Your task to perform on an android device: set the stopwatch Image 0: 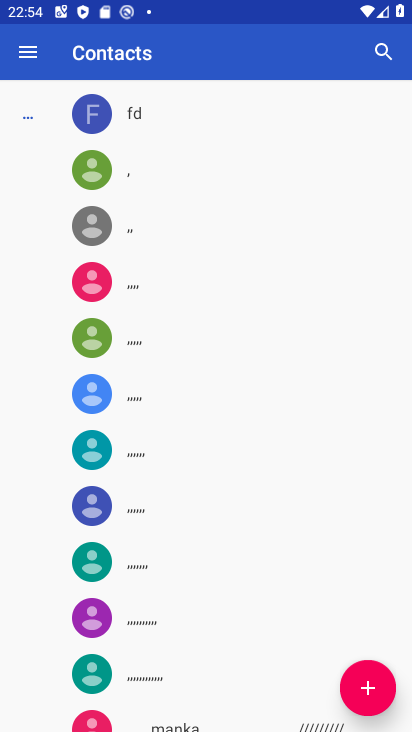
Step 0: press home button
Your task to perform on an android device: set the stopwatch Image 1: 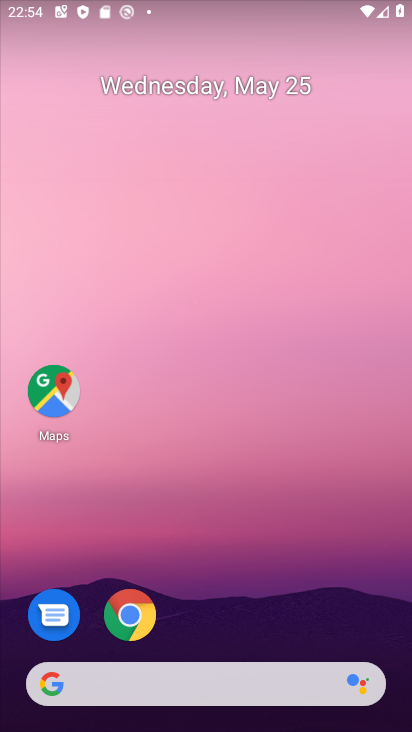
Step 1: drag from (313, 624) to (298, 264)
Your task to perform on an android device: set the stopwatch Image 2: 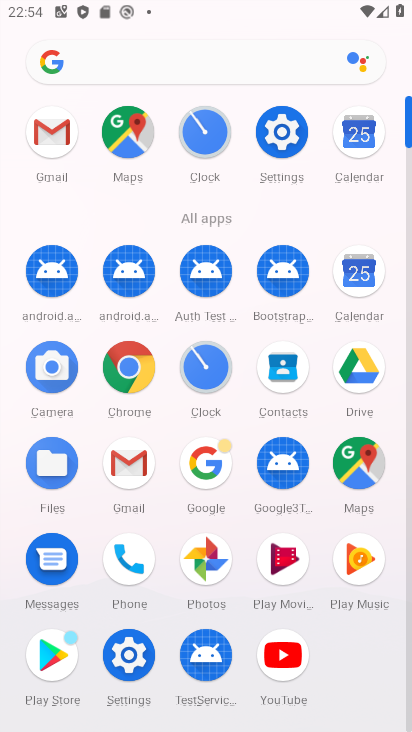
Step 2: click (208, 370)
Your task to perform on an android device: set the stopwatch Image 3: 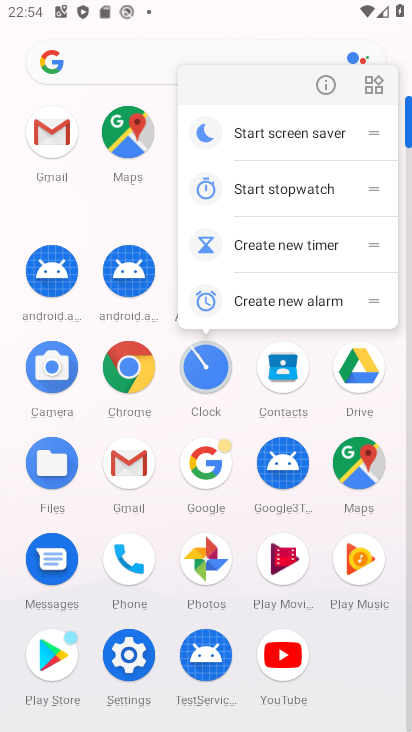
Step 3: click (198, 365)
Your task to perform on an android device: set the stopwatch Image 4: 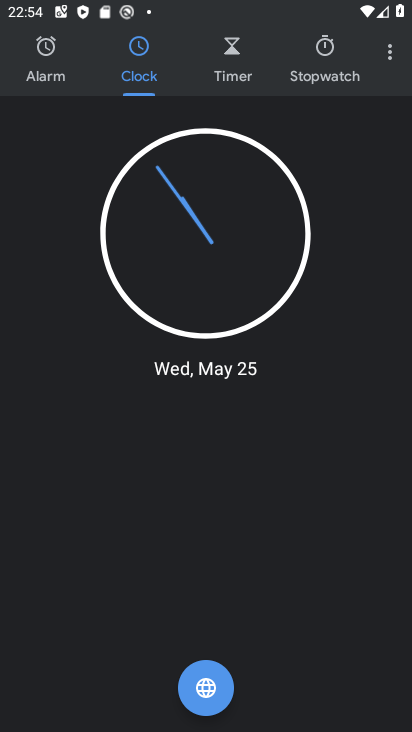
Step 4: click (327, 34)
Your task to perform on an android device: set the stopwatch Image 5: 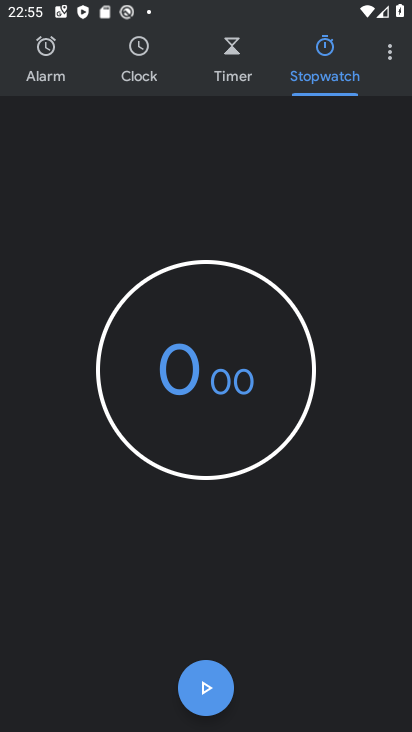
Step 5: click (212, 707)
Your task to perform on an android device: set the stopwatch Image 6: 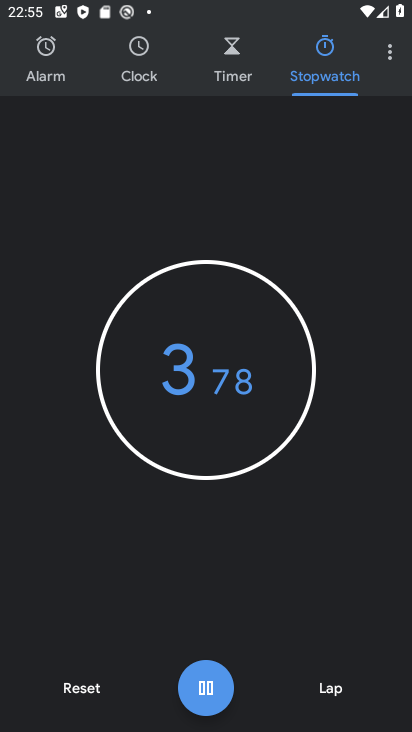
Step 6: click (220, 679)
Your task to perform on an android device: set the stopwatch Image 7: 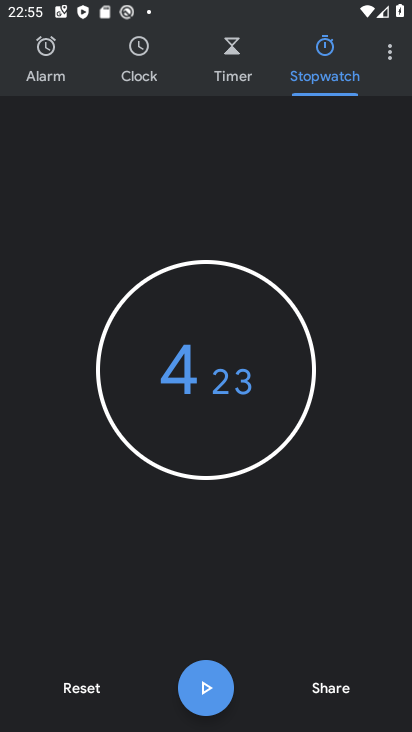
Step 7: task complete